Your task to perform on an android device: turn notification dots off Image 0: 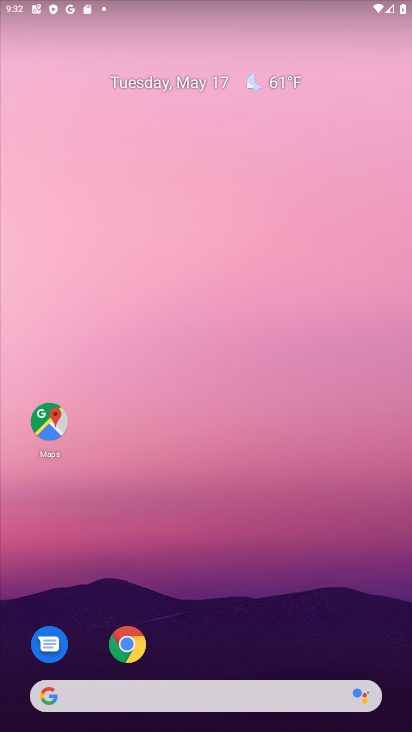
Step 0: drag from (214, 619) to (362, 32)
Your task to perform on an android device: turn notification dots off Image 1: 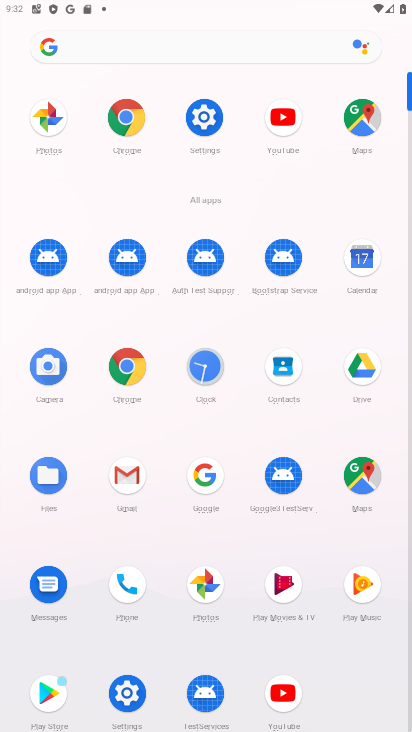
Step 1: click (207, 179)
Your task to perform on an android device: turn notification dots off Image 2: 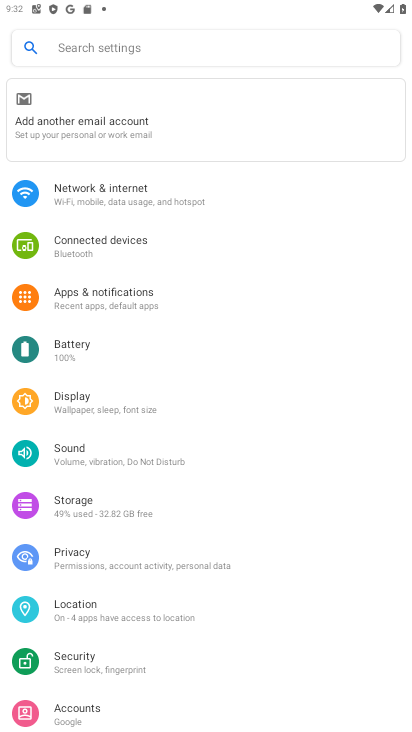
Step 2: click (166, 293)
Your task to perform on an android device: turn notification dots off Image 3: 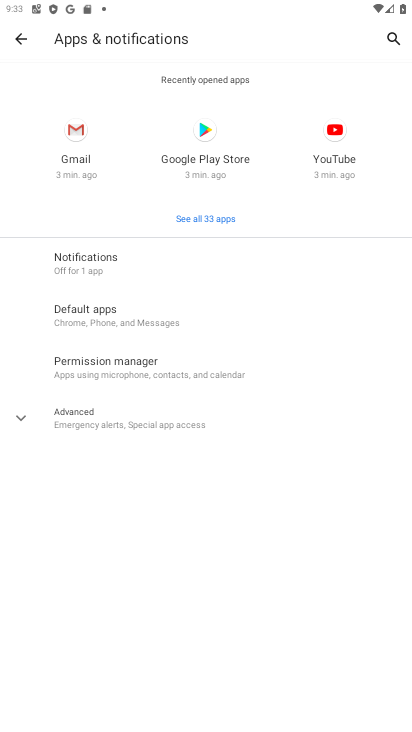
Step 3: click (100, 278)
Your task to perform on an android device: turn notification dots off Image 4: 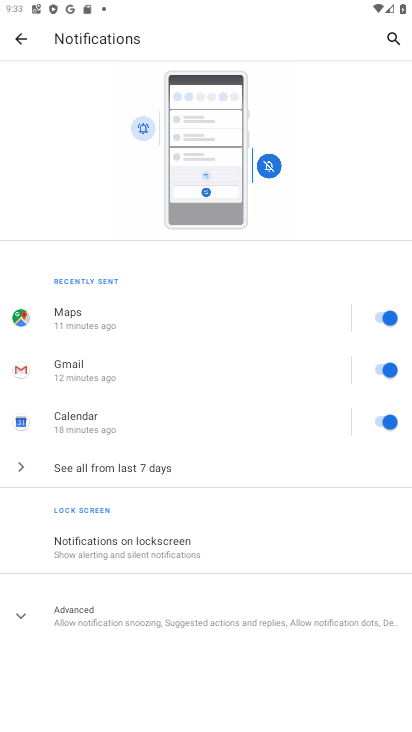
Step 4: click (127, 545)
Your task to perform on an android device: turn notification dots off Image 5: 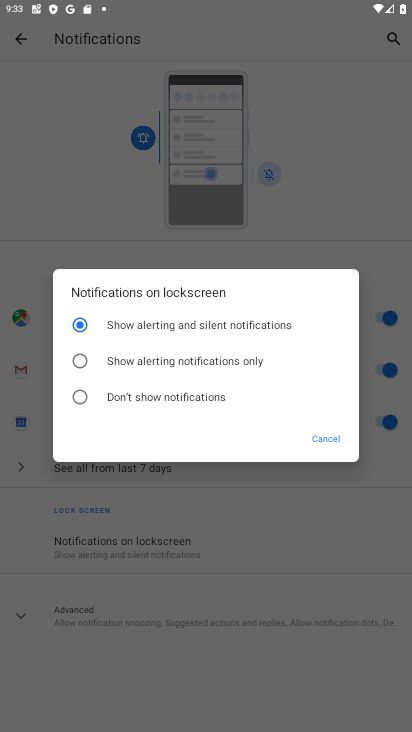
Step 5: click (331, 447)
Your task to perform on an android device: turn notification dots off Image 6: 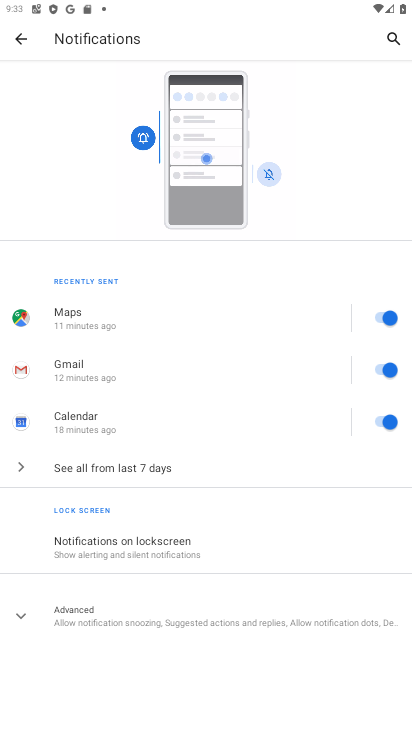
Step 6: click (149, 643)
Your task to perform on an android device: turn notification dots off Image 7: 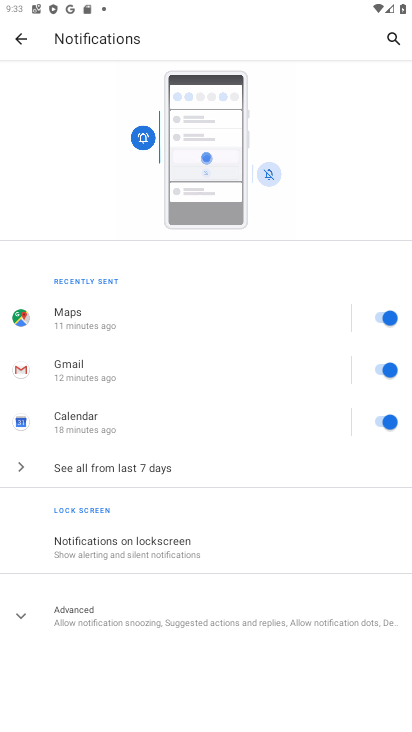
Step 7: click (149, 643)
Your task to perform on an android device: turn notification dots off Image 8: 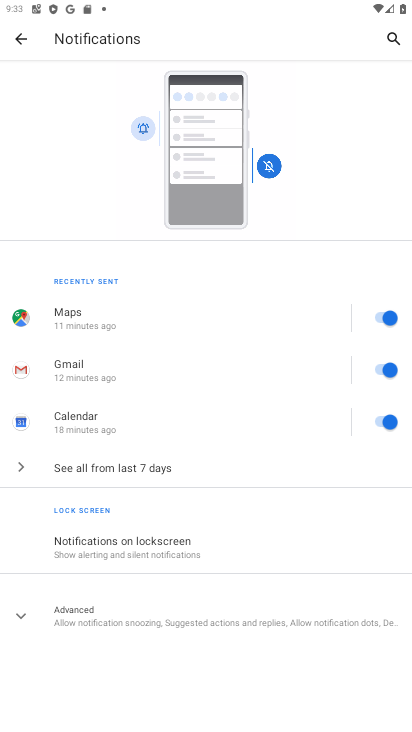
Step 8: click (80, 550)
Your task to perform on an android device: turn notification dots off Image 9: 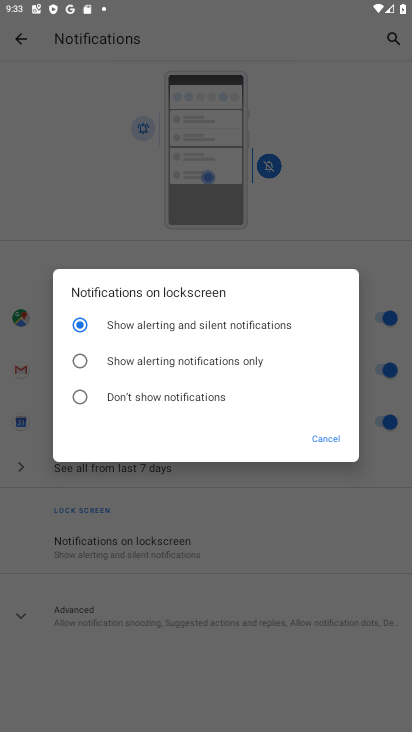
Step 9: click (339, 434)
Your task to perform on an android device: turn notification dots off Image 10: 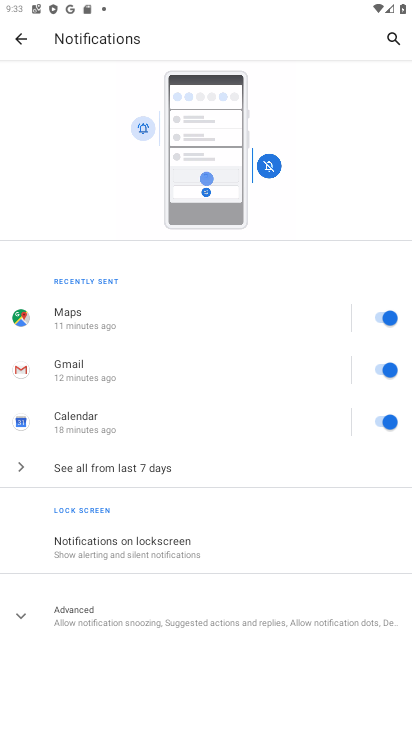
Step 10: click (121, 614)
Your task to perform on an android device: turn notification dots off Image 11: 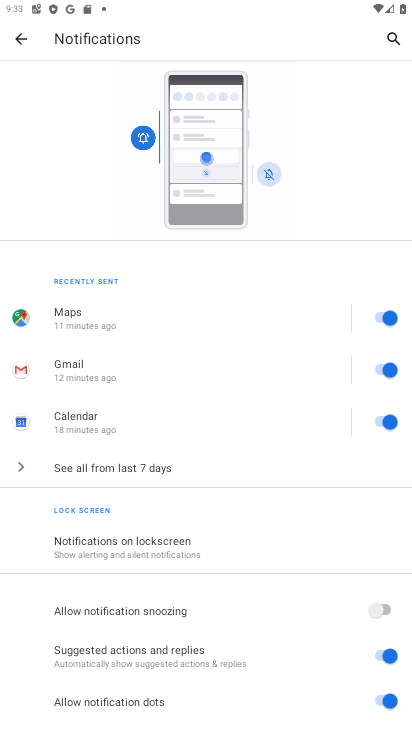
Step 11: click (385, 692)
Your task to perform on an android device: turn notification dots off Image 12: 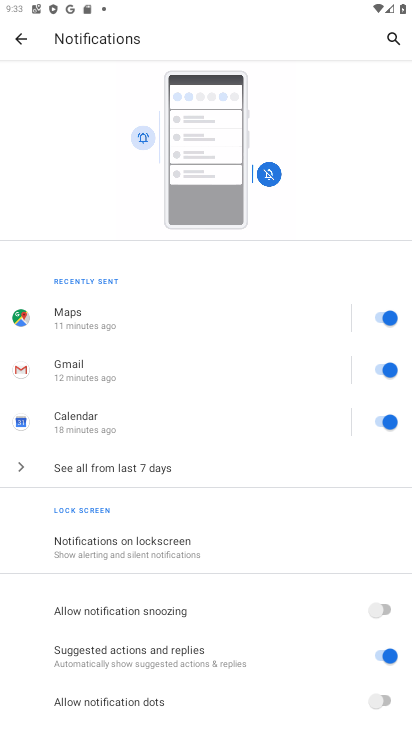
Step 12: task complete